Your task to perform on an android device: Open settings Image 0: 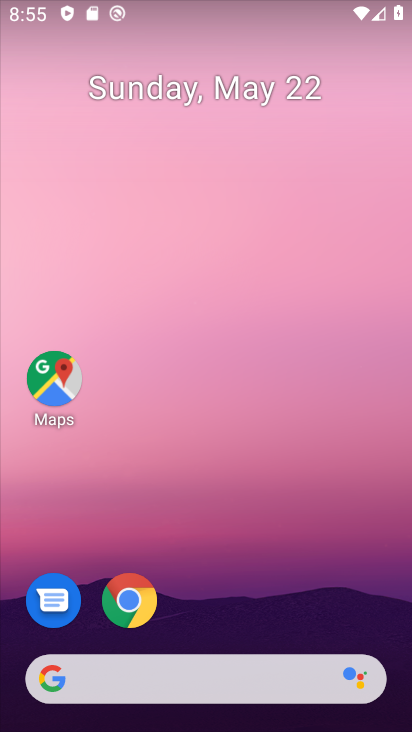
Step 0: drag from (254, 606) to (195, 161)
Your task to perform on an android device: Open settings Image 1: 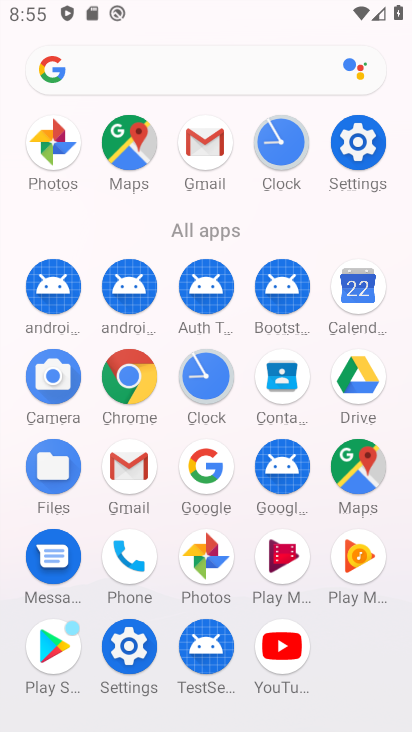
Step 1: click (360, 141)
Your task to perform on an android device: Open settings Image 2: 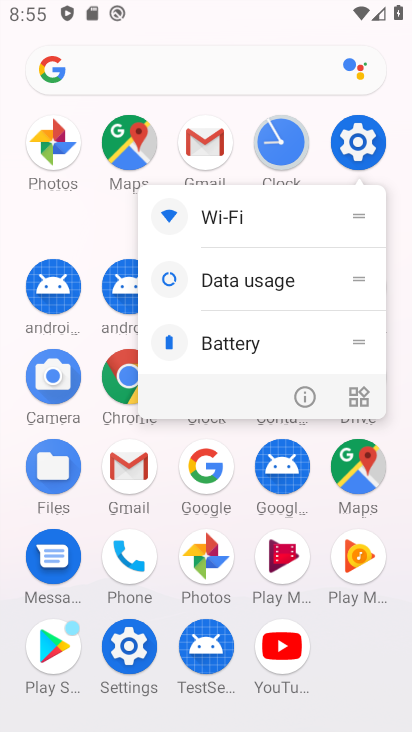
Step 2: click (360, 141)
Your task to perform on an android device: Open settings Image 3: 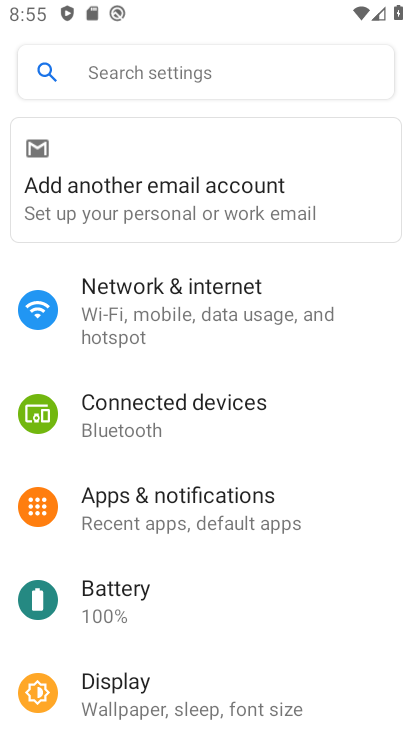
Step 3: task complete